Your task to perform on an android device: turn off airplane mode Image 0: 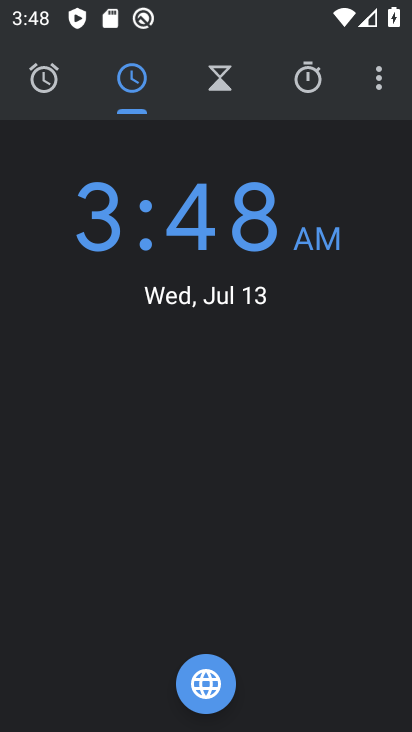
Step 0: press home button
Your task to perform on an android device: turn off airplane mode Image 1: 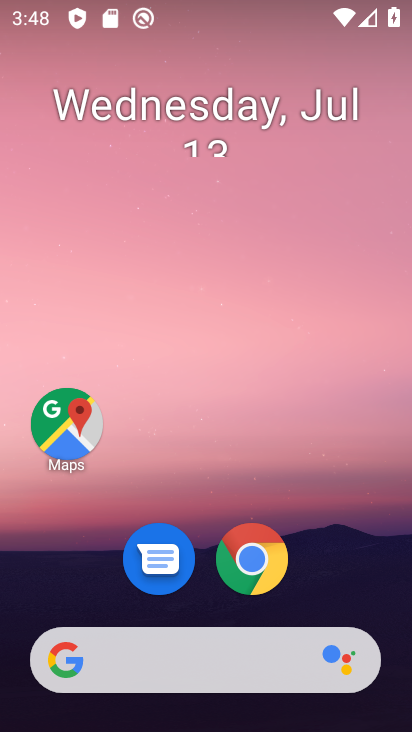
Step 1: drag from (176, 622) to (173, 196)
Your task to perform on an android device: turn off airplane mode Image 2: 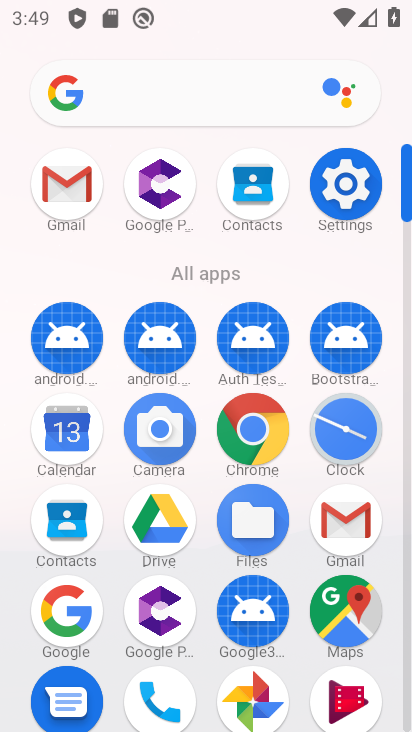
Step 2: click (363, 227)
Your task to perform on an android device: turn off airplane mode Image 3: 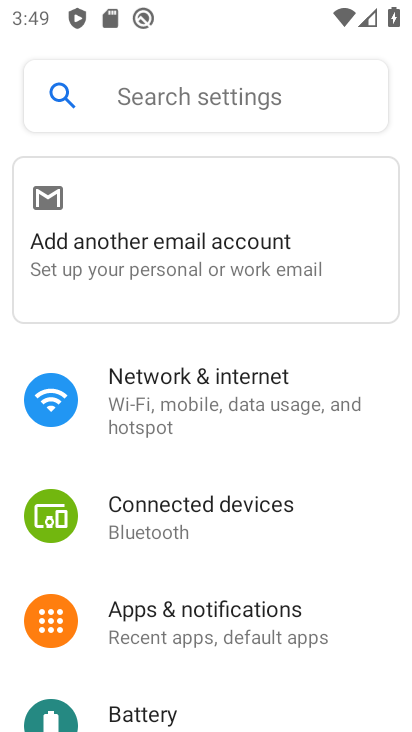
Step 3: click (176, 413)
Your task to perform on an android device: turn off airplane mode Image 4: 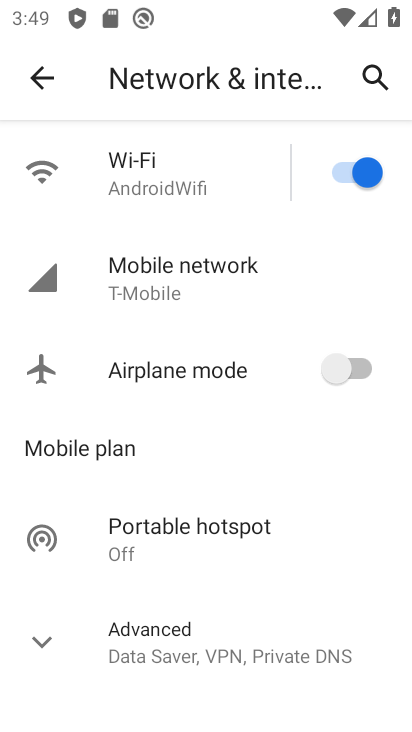
Step 4: task complete